Your task to perform on an android device: turn pop-ups on in chrome Image 0: 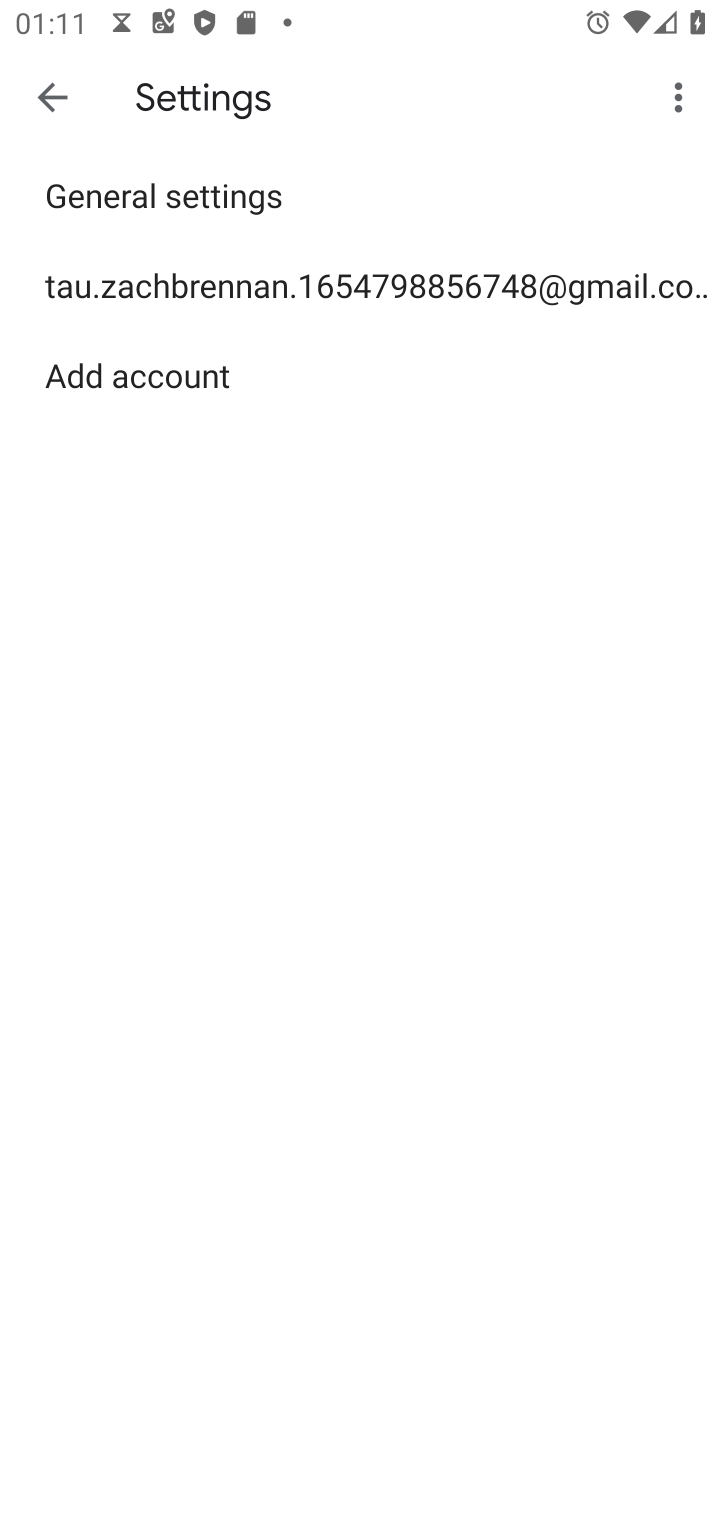
Step 0: press home button
Your task to perform on an android device: turn pop-ups on in chrome Image 1: 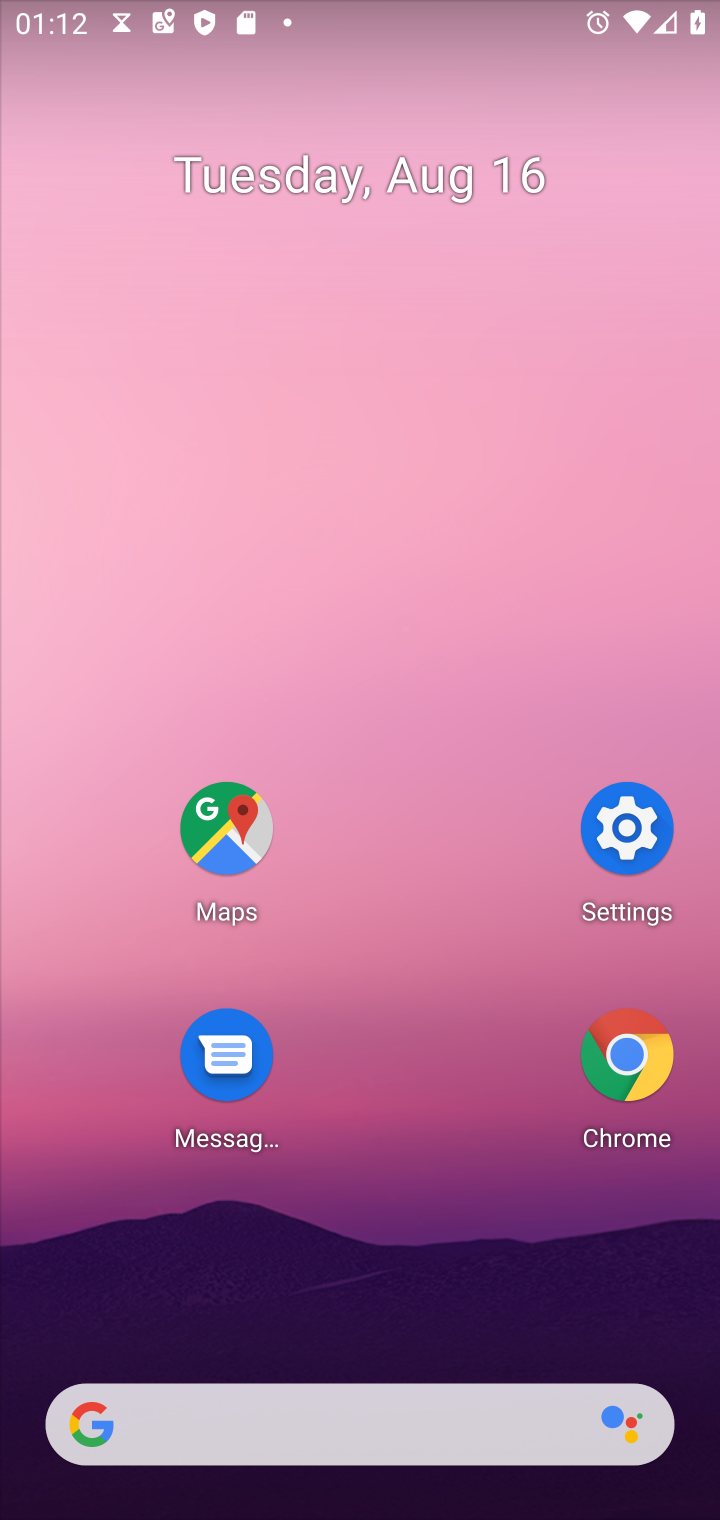
Step 1: click (621, 1027)
Your task to perform on an android device: turn pop-ups on in chrome Image 2: 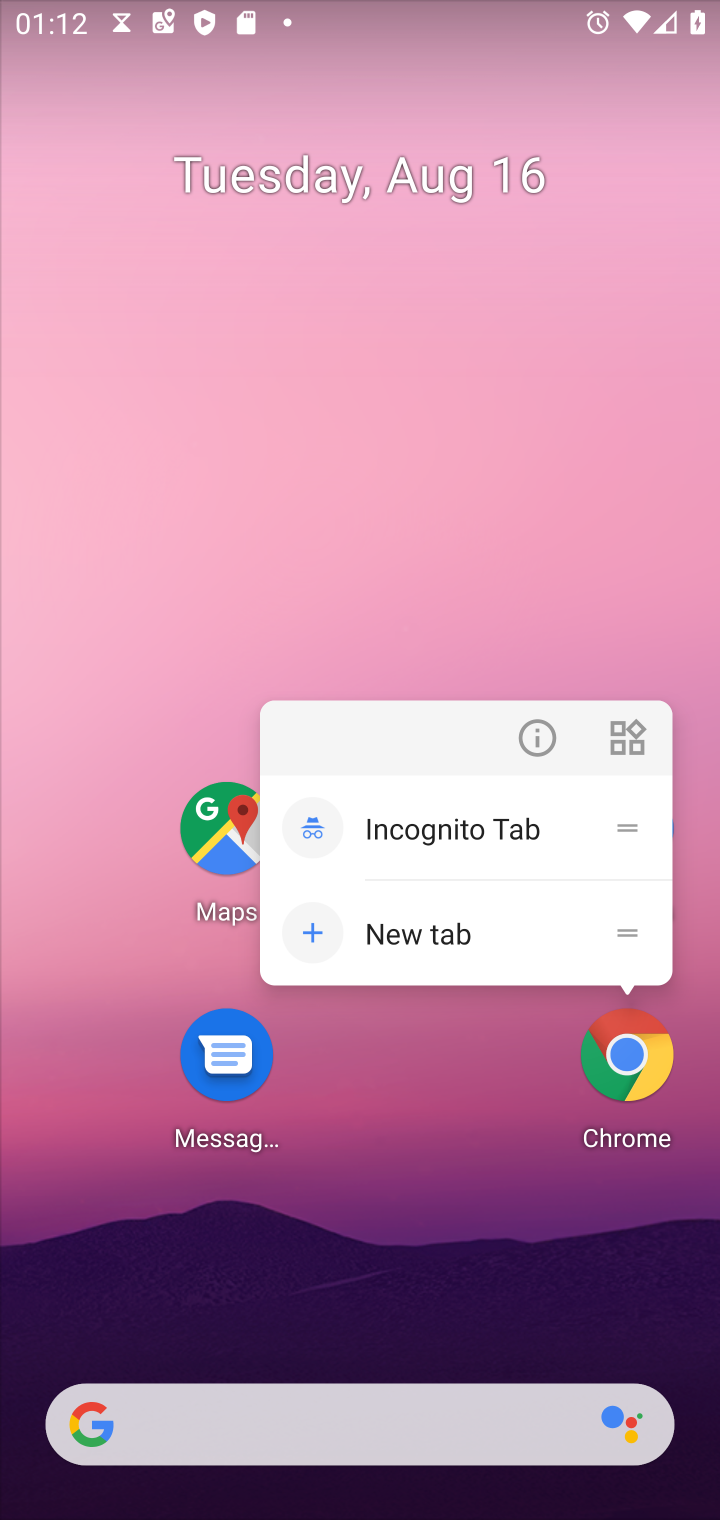
Step 2: click (621, 1038)
Your task to perform on an android device: turn pop-ups on in chrome Image 3: 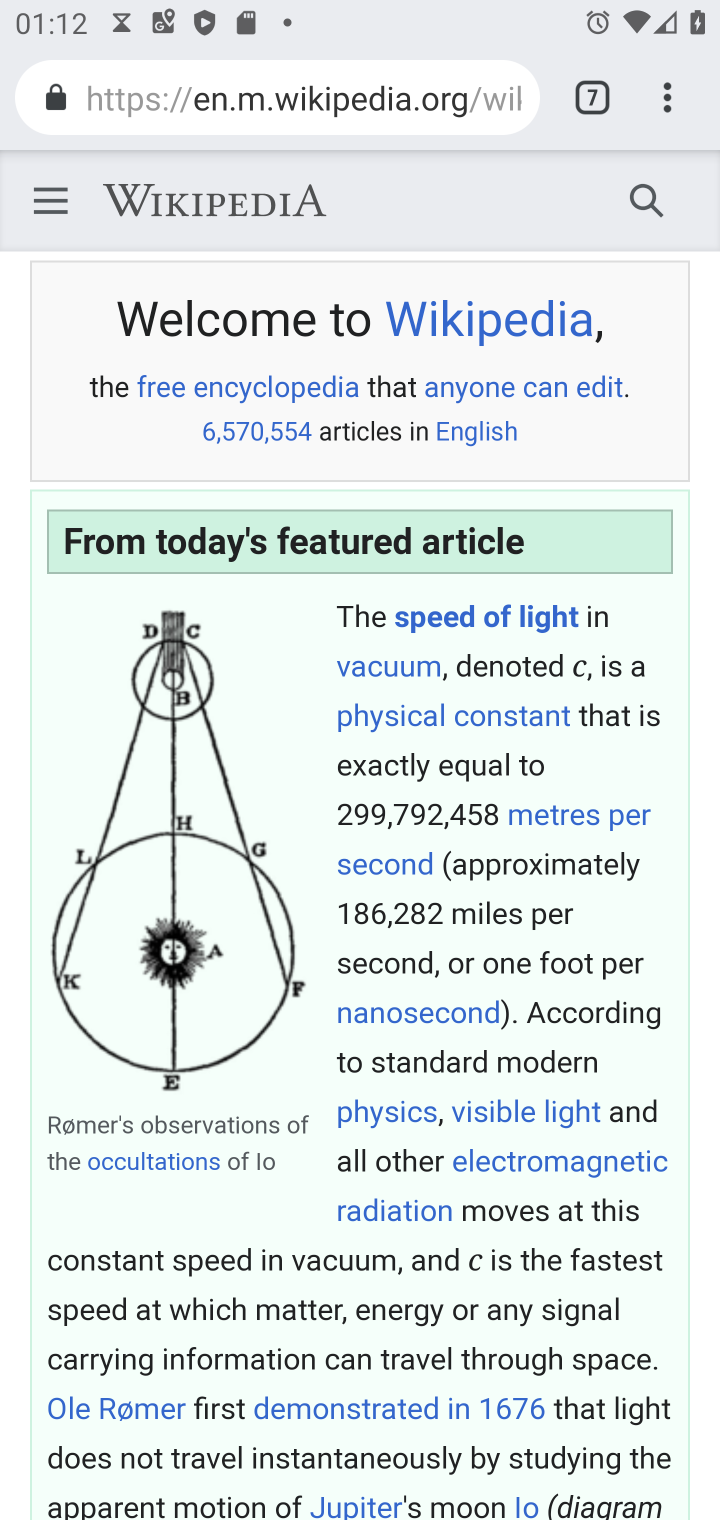
Step 3: drag from (667, 83) to (411, 1199)
Your task to perform on an android device: turn pop-ups on in chrome Image 4: 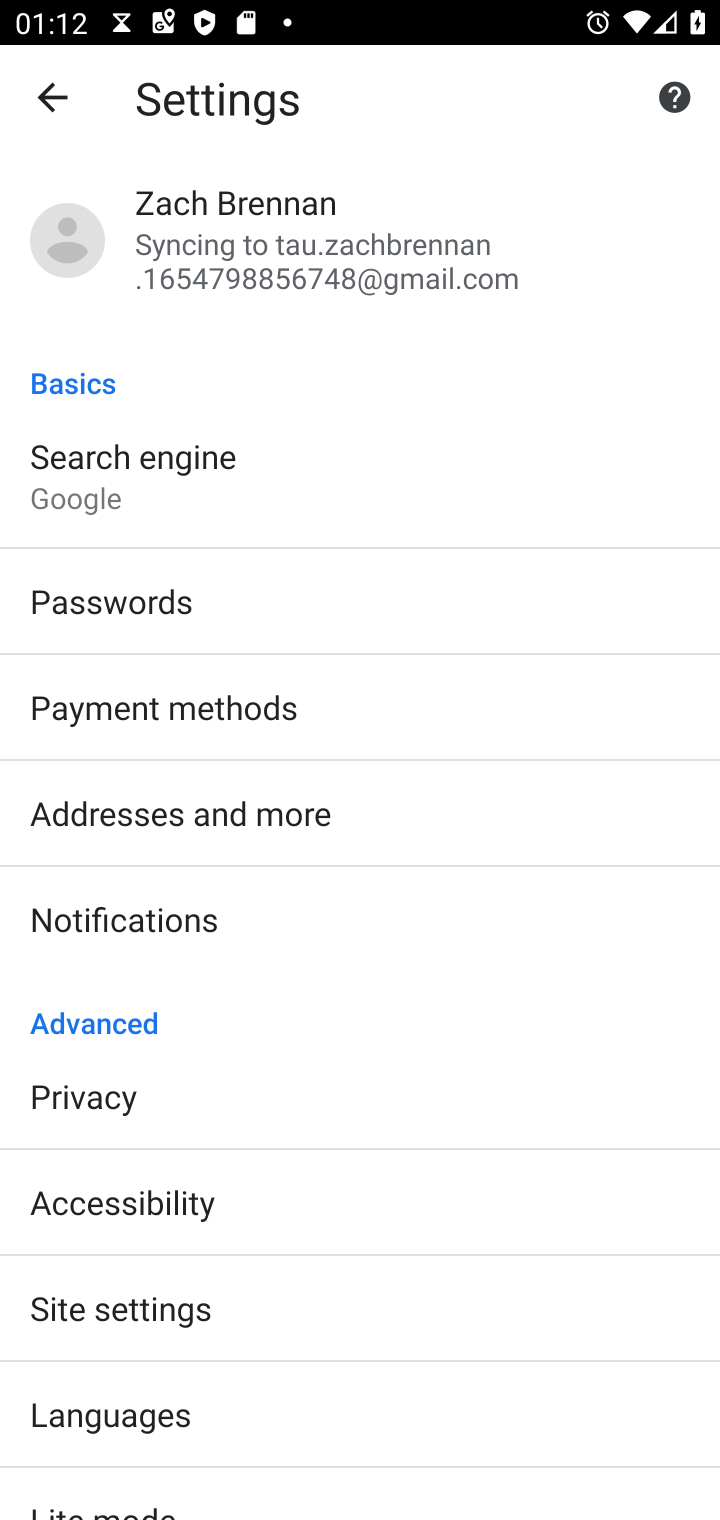
Step 4: click (198, 1300)
Your task to perform on an android device: turn pop-ups on in chrome Image 5: 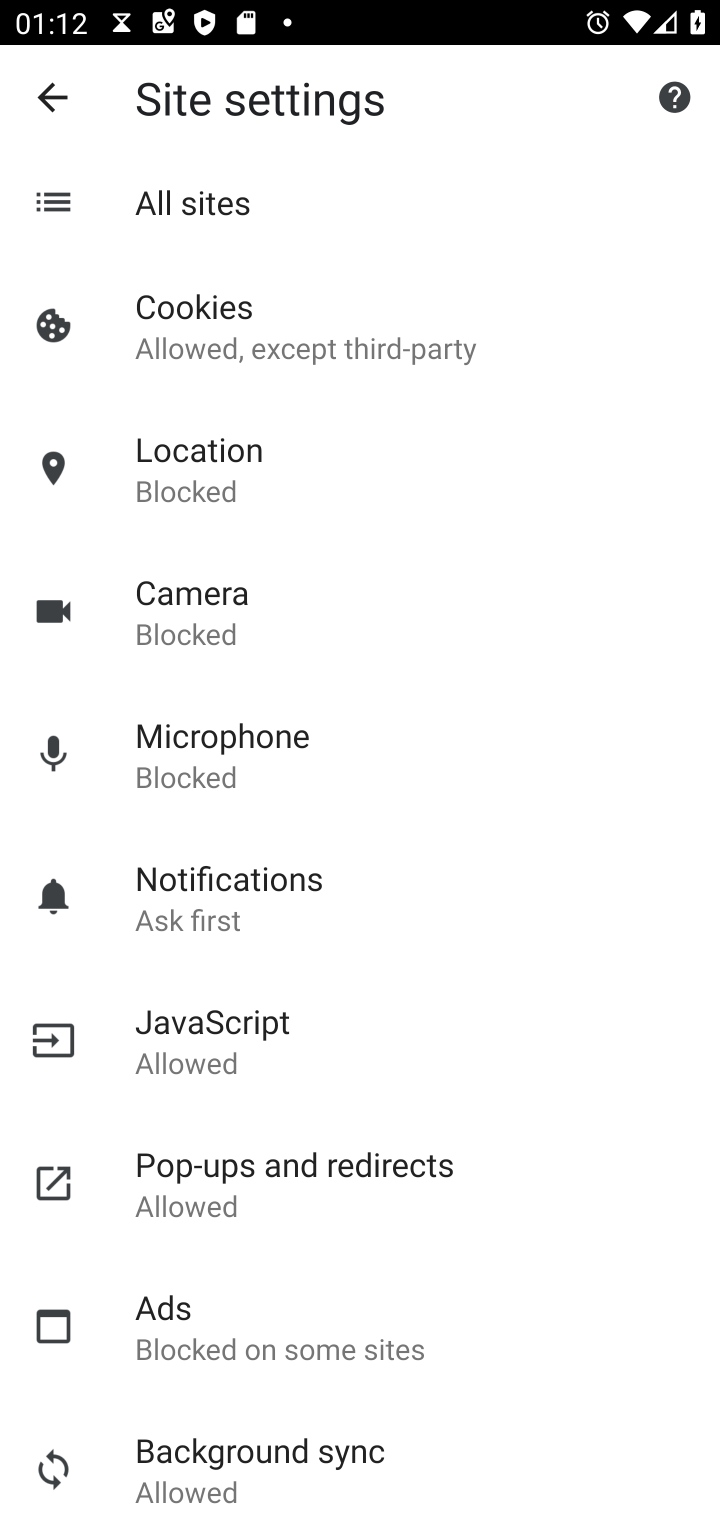
Step 5: click (256, 1198)
Your task to perform on an android device: turn pop-ups on in chrome Image 6: 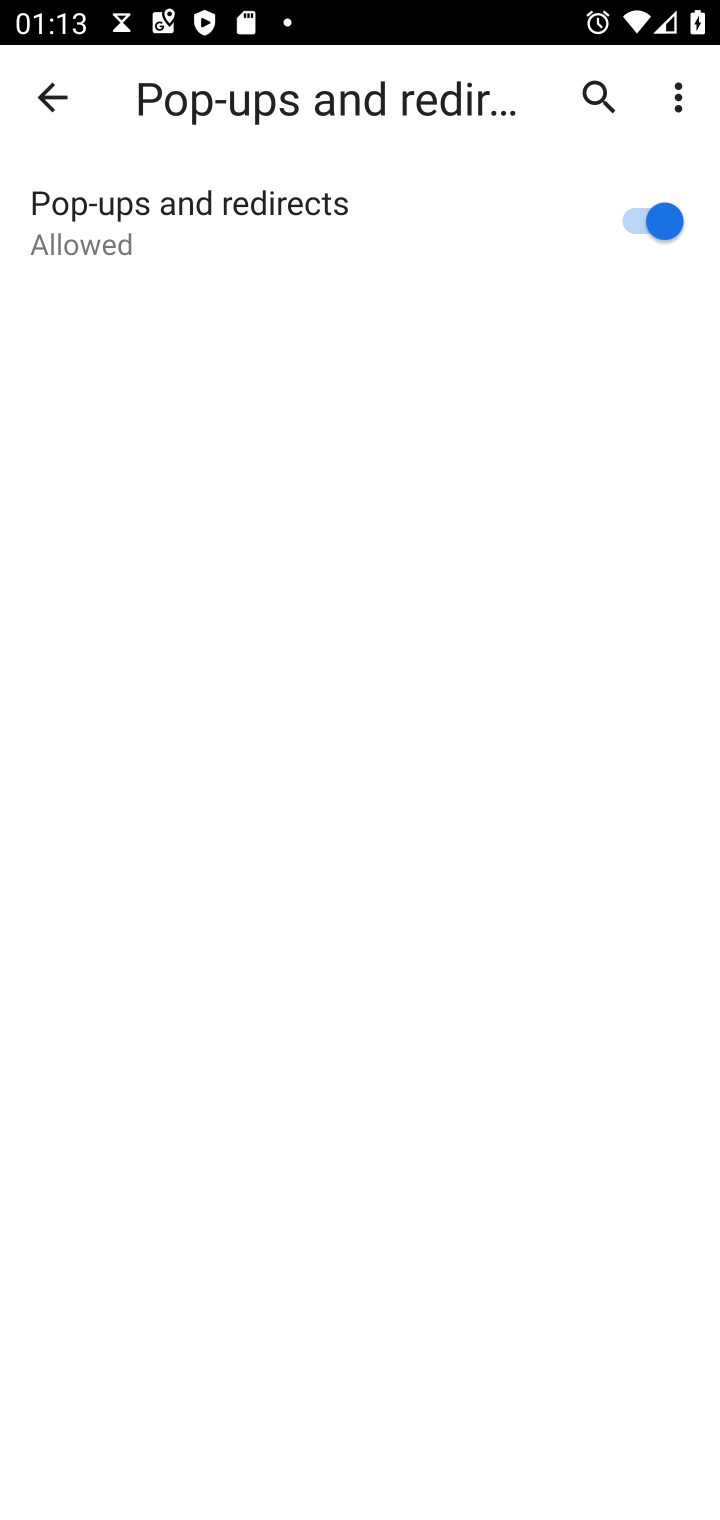
Step 6: task complete